Your task to perform on an android device: open app "The Home Depot" (install if not already installed) and go to login screen Image 0: 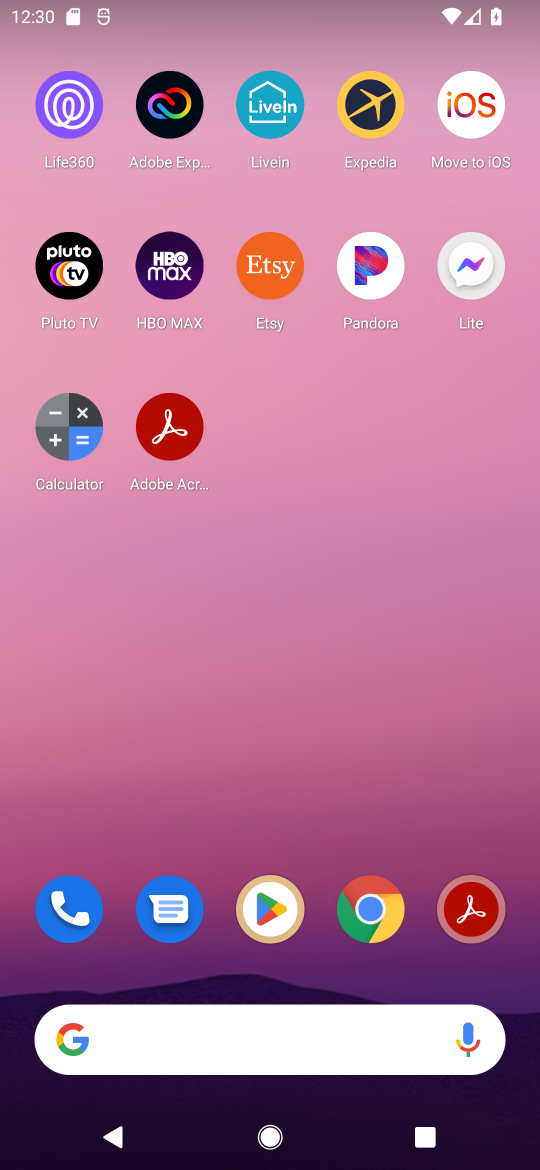
Step 0: click (266, 910)
Your task to perform on an android device: open app "The Home Depot" (install if not already installed) and go to login screen Image 1: 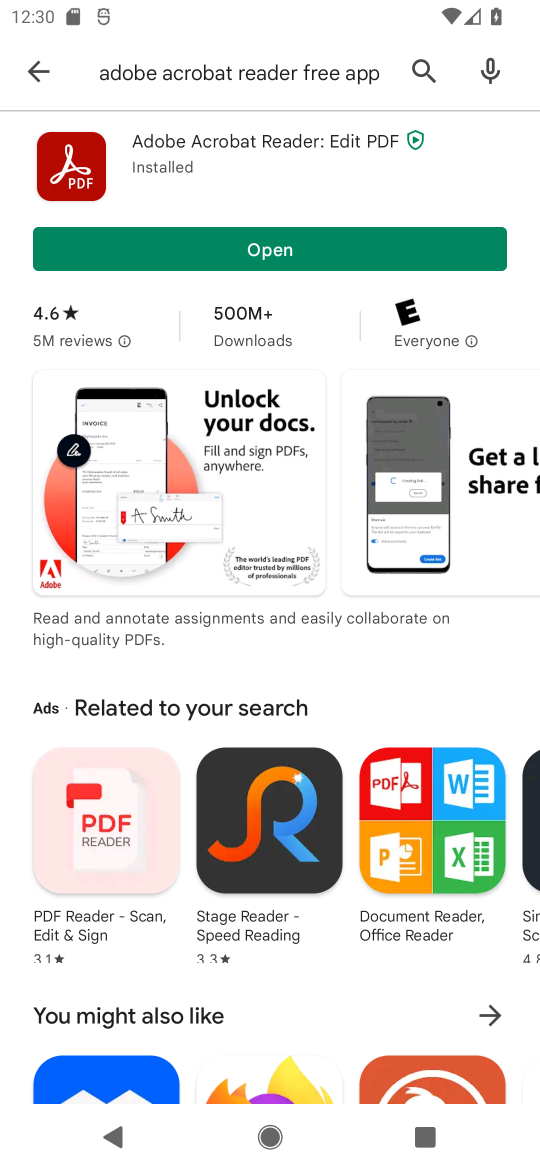
Step 1: click (402, 61)
Your task to perform on an android device: open app "The Home Depot" (install if not already installed) and go to login screen Image 2: 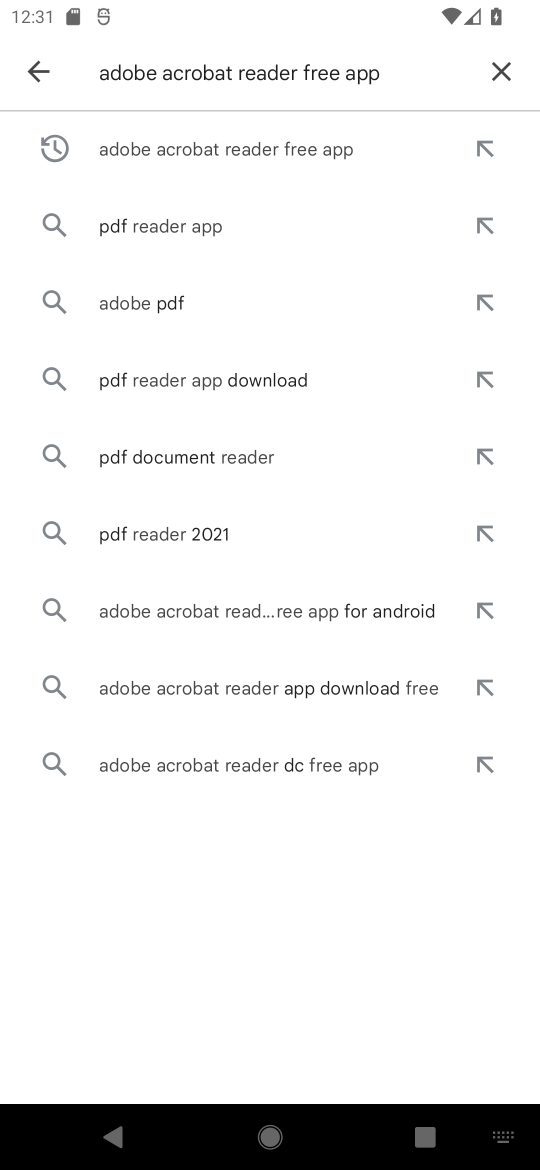
Step 2: click (505, 62)
Your task to perform on an android device: open app "The Home Depot" (install if not already installed) and go to login screen Image 3: 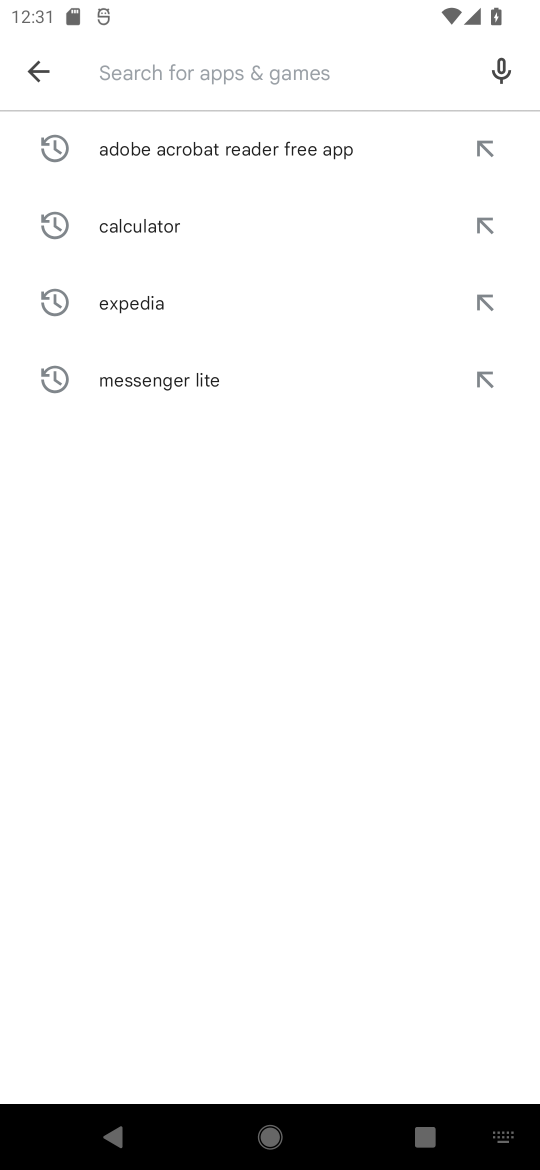
Step 3: click (167, 53)
Your task to perform on an android device: open app "The Home Depot" (install if not already installed) and go to login screen Image 4: 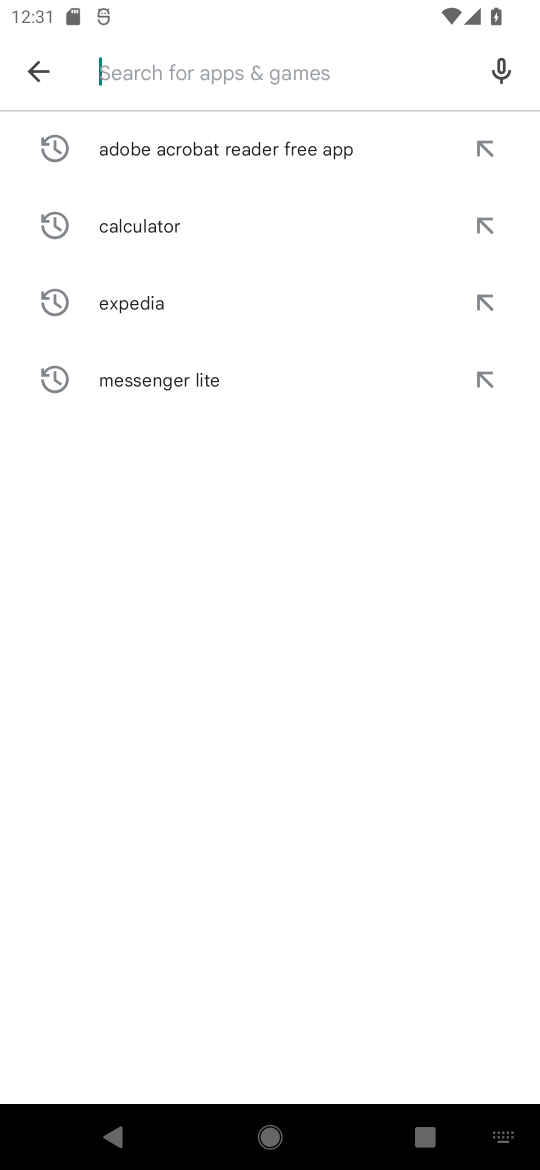
Step 4: type "The Home Depot"
Your task to perform on an android device: open app "The Home Depot" (install if not already installed) and go to login screen Image 5: 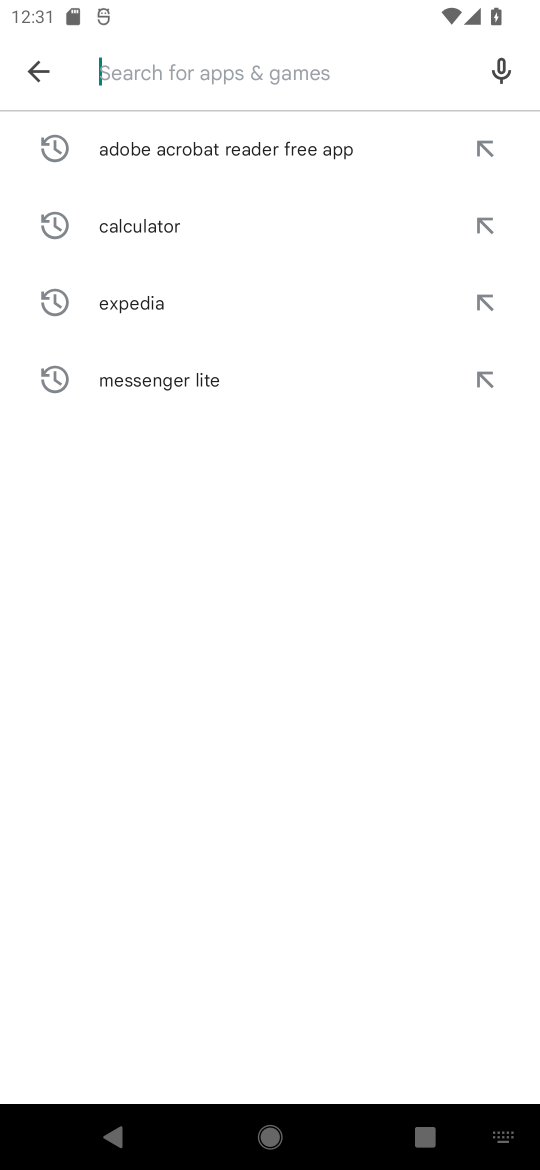
Step 5: click (255, 846)
Your task to perform on an android device: open app "The Home Depot" (install if not already installed) and go to login screen Image 6: 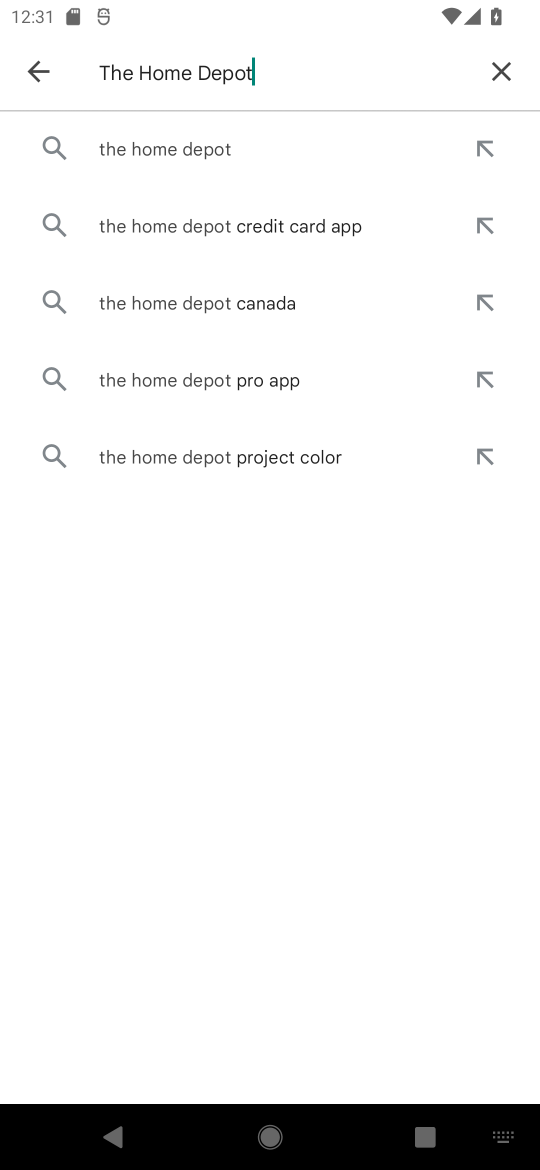
Step 6: click (198, 145)
Your task to perform on an android device: open app "The Home Depot" (install if not already installed) and go to login screen Image 7: 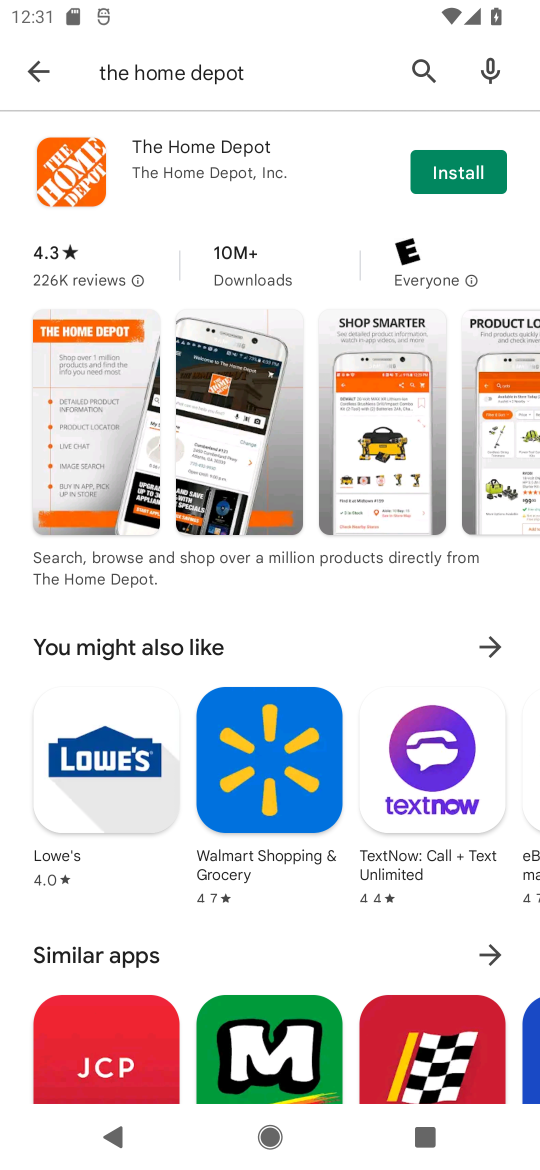
Step 7: click (413, 86)
Your task to perform on an android device: open app "The Home Depot" (install if not already installed) and go to login screen Image 8: 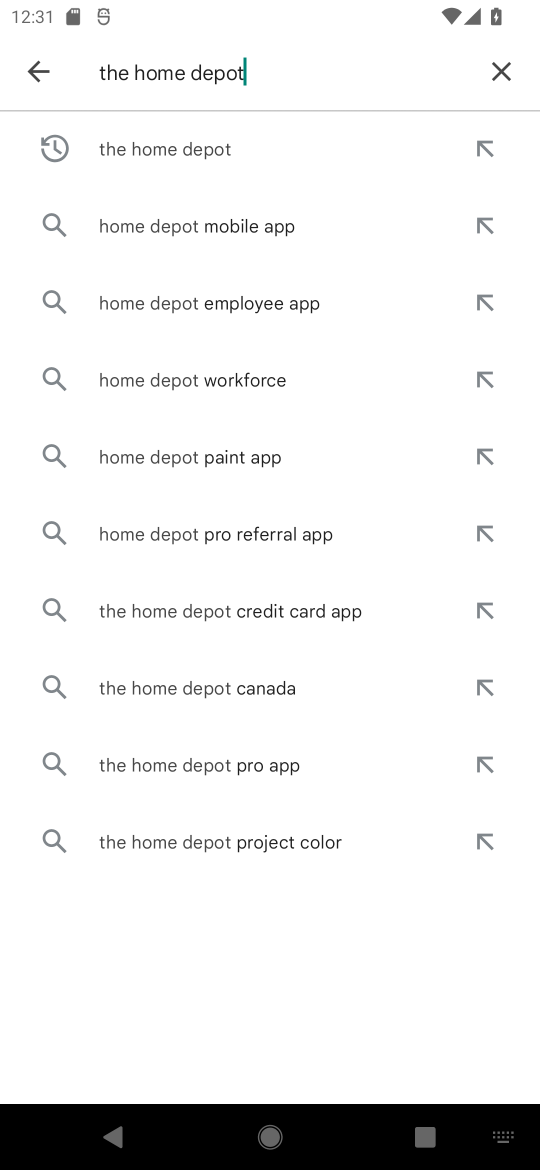
Step 8: click (139, 137)
Your task to perform on an android device: open app "The Home Depot" (install if not already installed) and go to login screen Image 9: 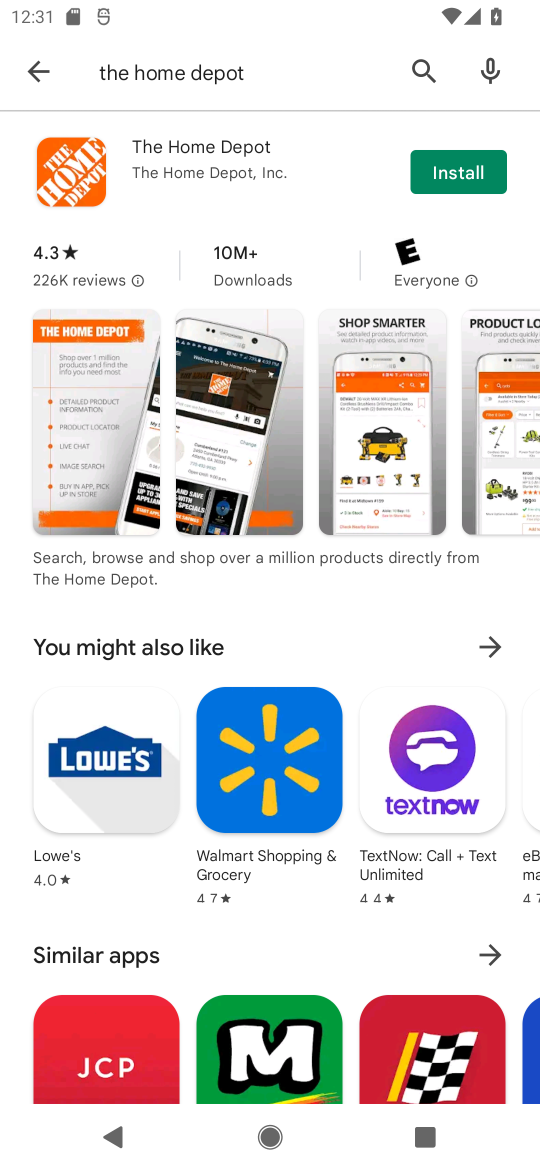
Step 9: click (481, 181)
Your task to perform on an android device: open app "The Home Depot" (install if not already installed) and go to login screen Image 10: 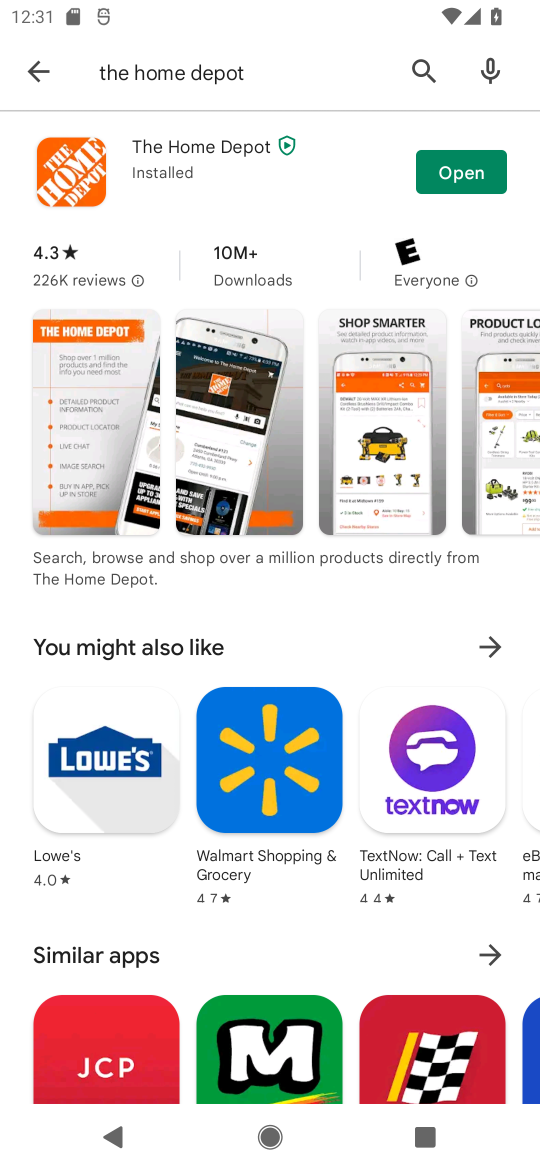
Step 10: click (479, 176)
Your task to perform on an android device: open app "The Home Depot" (install if not already installed) and go to login screen Image 11: 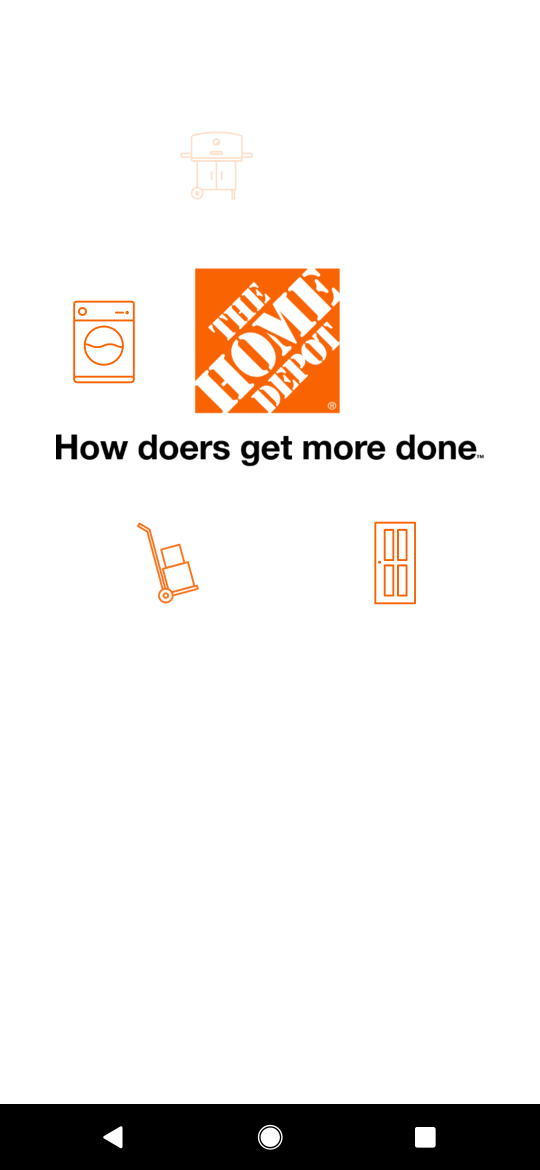
Step 11: task complete